Your task to perform on an android device: Go to Android settings Image 0: 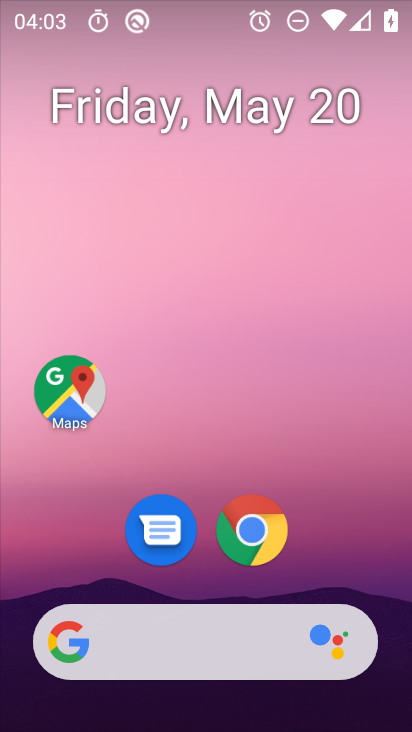
Step 0: drag from (390, 581) to (382, 204)
Your task to perform on an android device: Go to Android settings Image 1: 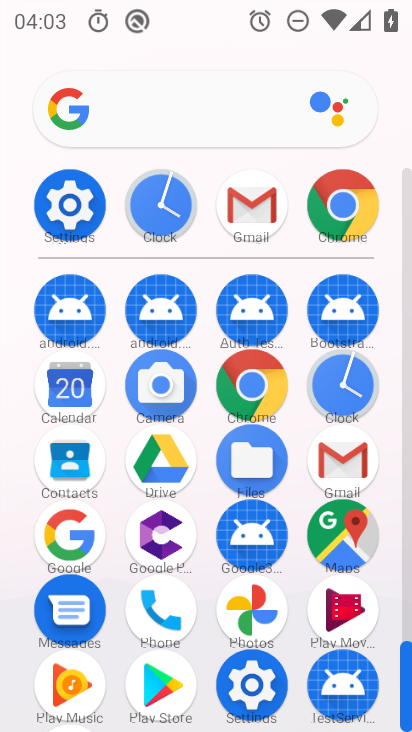
Step 1: click (72, 206)
Your task to perform on an android device: Go to Android settings Image 2: 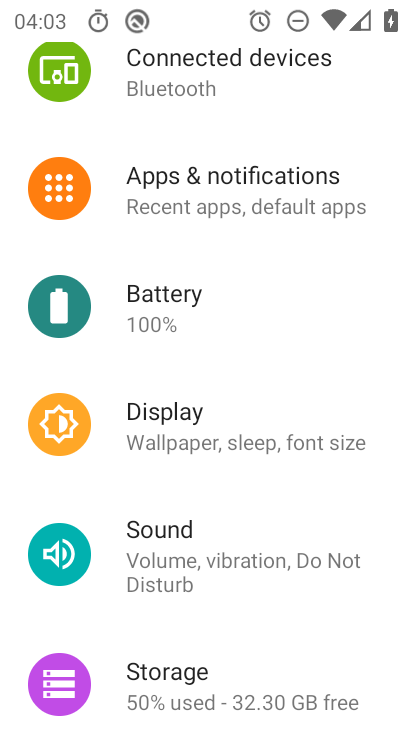
Step 2: task complete